Your task to perform on an android device: toggle airplane mode Image 0: 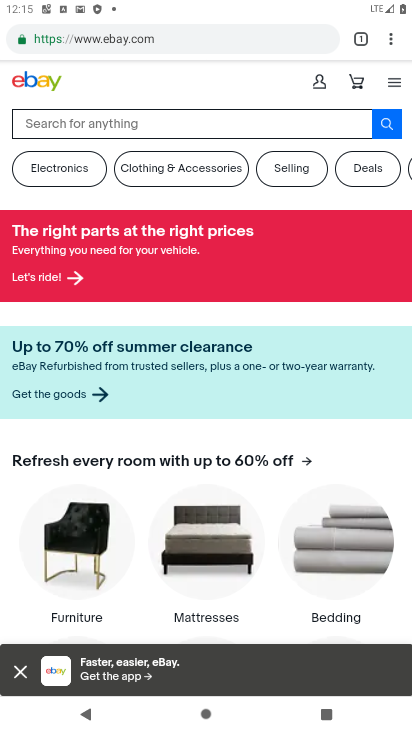
Step 0: press home button
Your task to perform on an android device: toggle airplane mode Image 1: 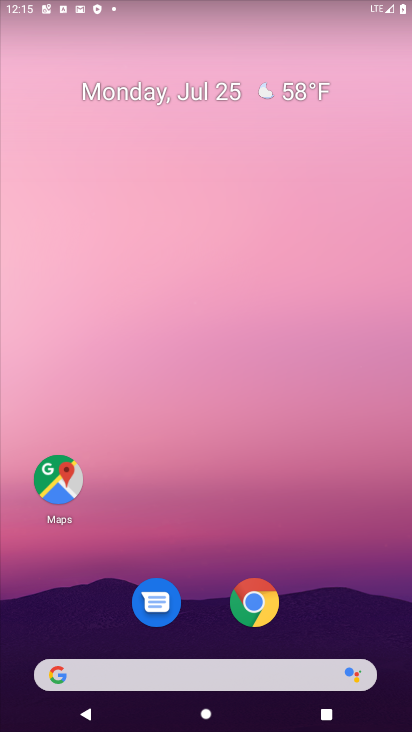
Step 1: drag from (202, 604) to (227, 232)
Your task to perform on an android device: toggle airplane mode Image 2: 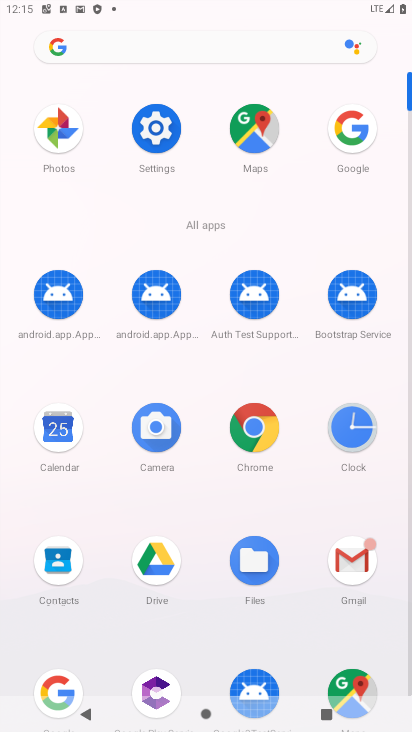
Step 2: click (150, 124)
Your task to perform on an android device: toggle airplane mode Image 3: 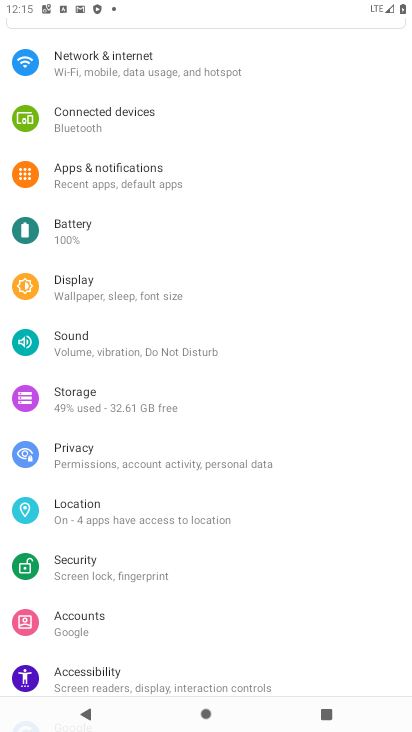
Step 3: drag from (157, 119) to (169, 463)
Your task to perform on an android device: toggle airplane mode Image 4: 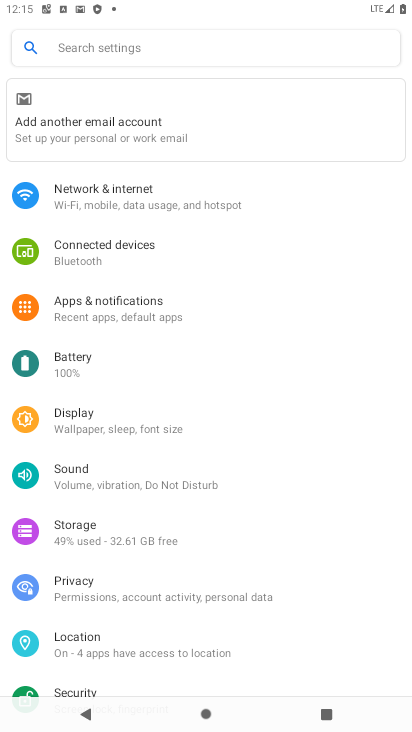
Step 4: click (157, 214)
Your task to perform on an android device: toggle airplane mode Image 5: 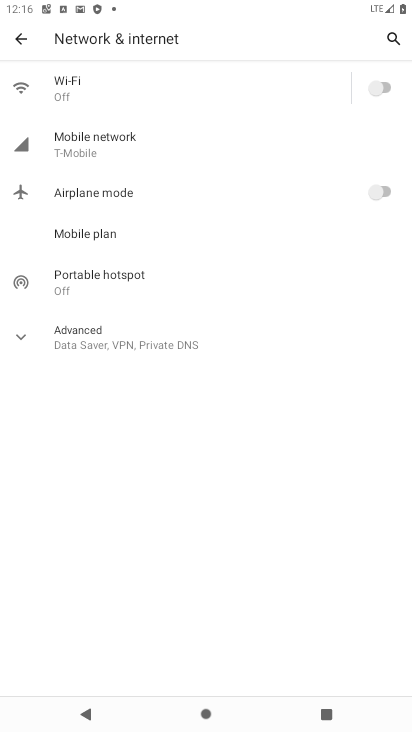
Step 5: click (383, 189)
Your task to perform on an android device: toggle airplane mode Image 6: 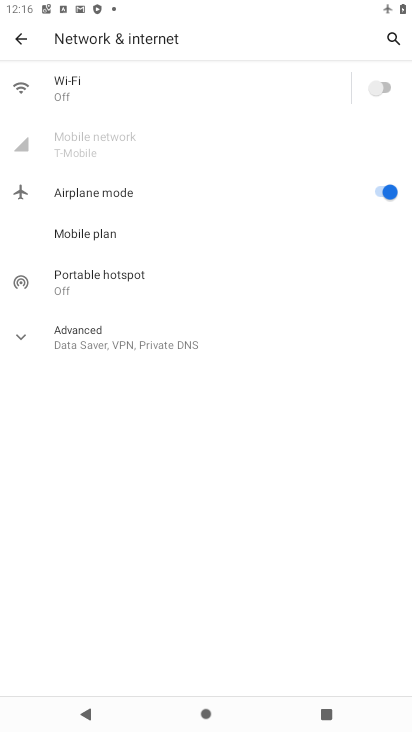
Step 6: task complete